Your task to perform on an android device: Open Google Image 0: 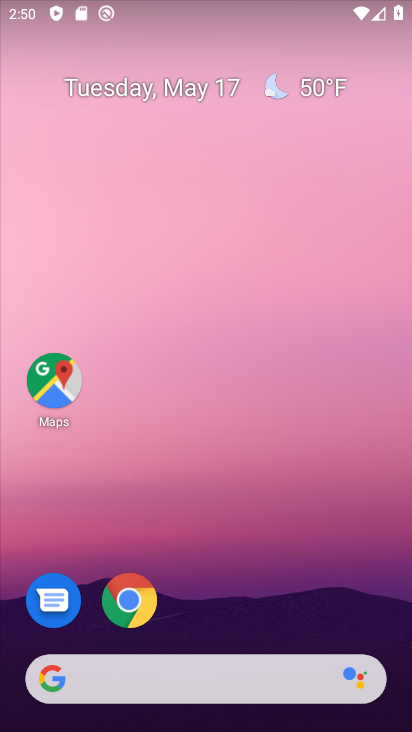
Step 0: drag from (238, 596) to (233, 293)
Your task to perform on an android device: Open Google Image 1: 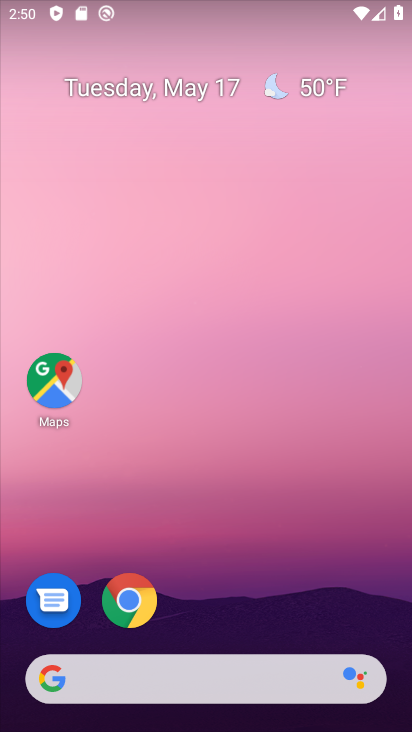
Step 1: drag from (221, 532) to (252, 273)
Your task to perform on an android device: Open Google Image 2: 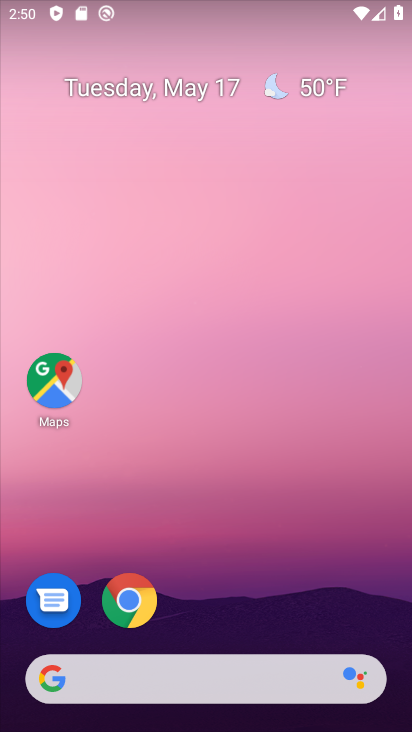
Step 2: drag from (245, 612) to (245, 313)
Your task to perform on an android device: Open Google Image 3: 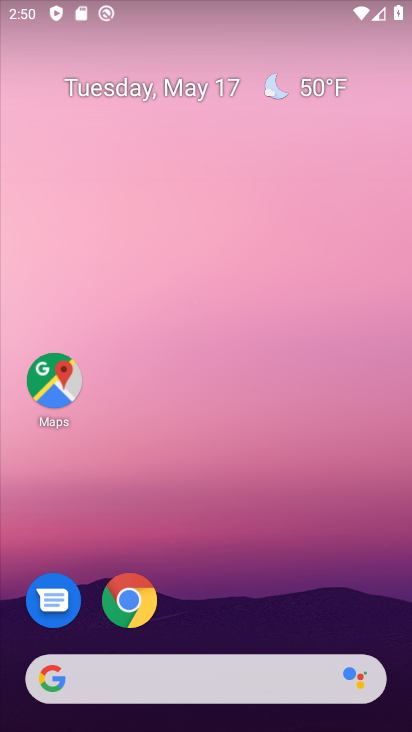
Step 3: drag from (217, 640) to (245, 305)
Your task to perform on an android device: Open Google Image 4: 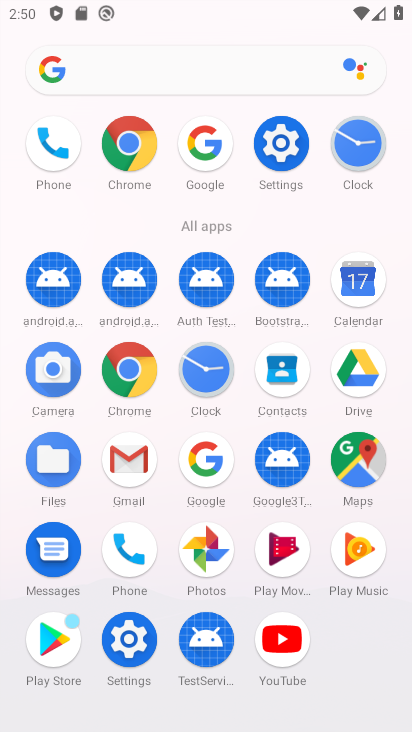
Step 4: click (195, 467)
Your task to perform on an android device: Open Google Image 5: 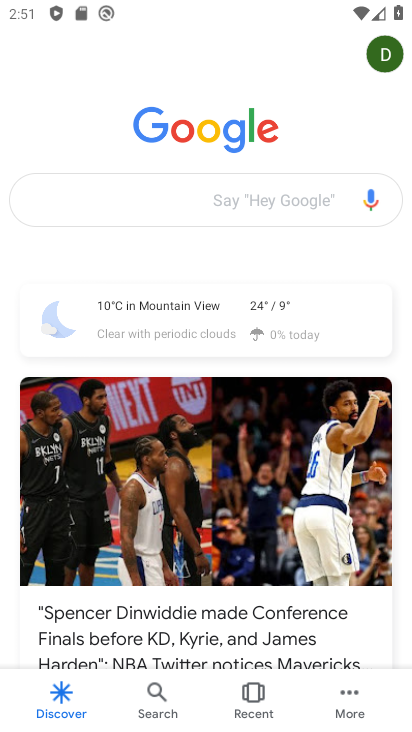
Step 5: task complete